Your task to perform on an android device: Go to display settings Image 0: 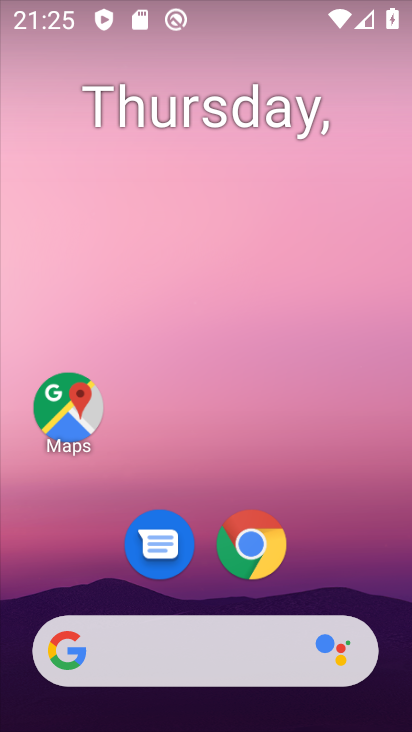
Step 0: drag from (82, 721) to (204, 189)
Your task to perform on an android device: Go to display settings Image 1: 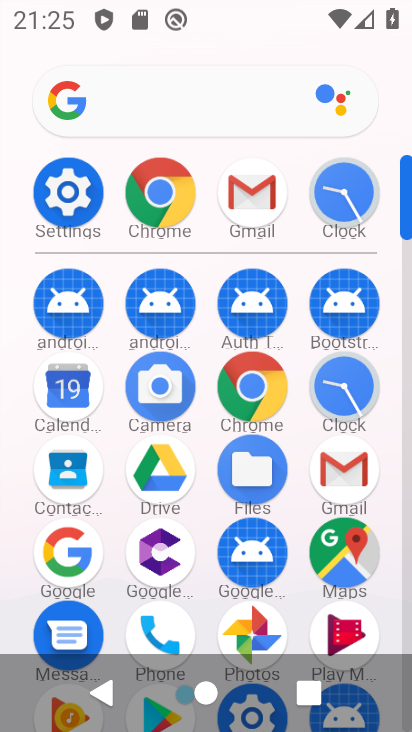
Step 1: click (66, 188)
Your task to perform on an android device: Go to display settings Image 2: 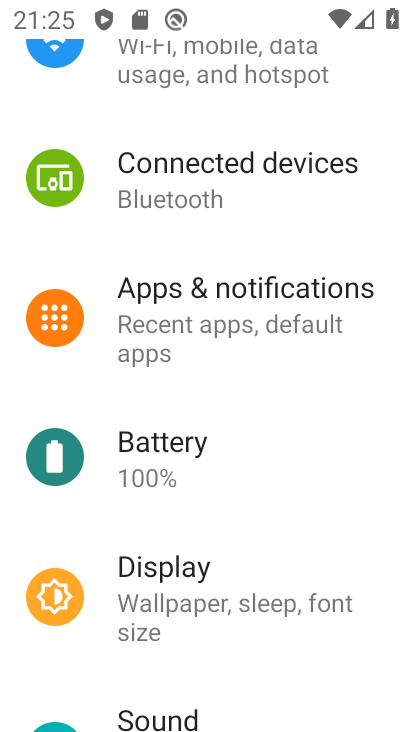
Step 2: click (226, 588)
Your task to perform on an android device: Go to display settings Image 3: 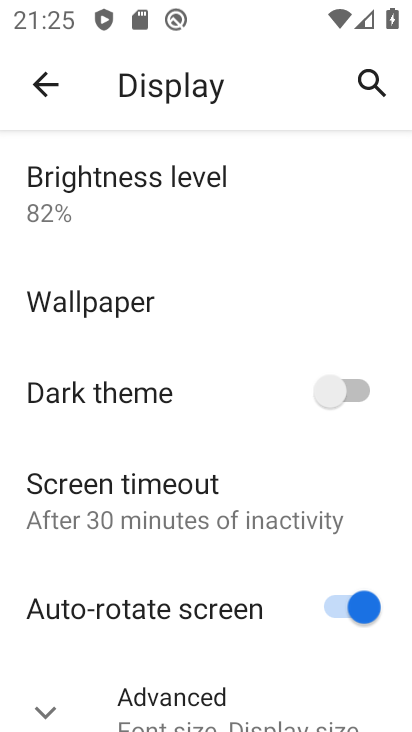
Step 3: task complete